Your task to perform on an android device: Find coffee shops on Maps Image 0: 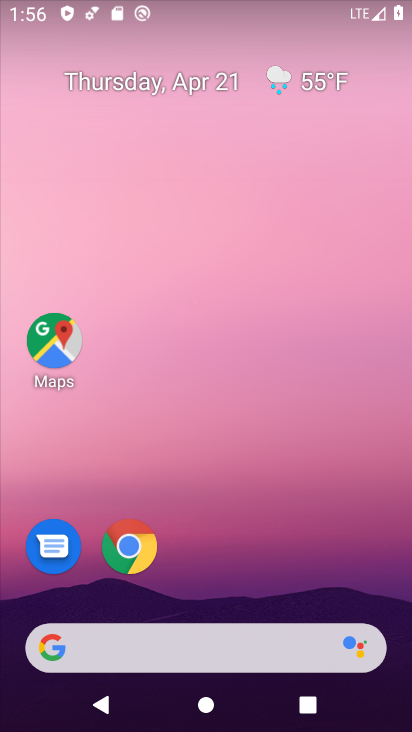
Step 0: click (59, 355)
Your task to perform on an android device: Find coffee shops on Maps Image 1: 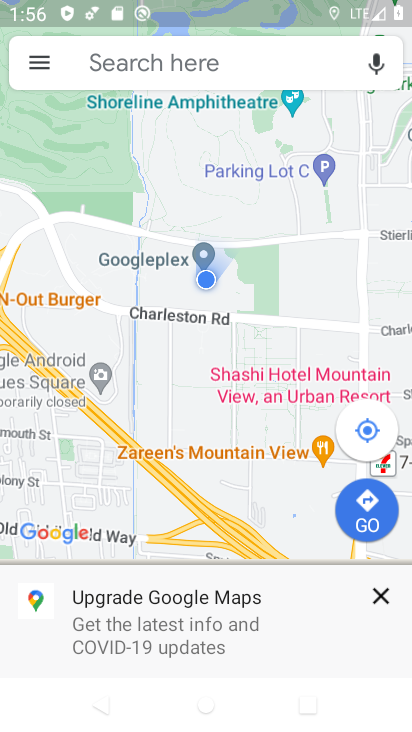
Step 1: click (208, 76)
Your task to perform on an android device: Find coffee shops on Maps Image 2: 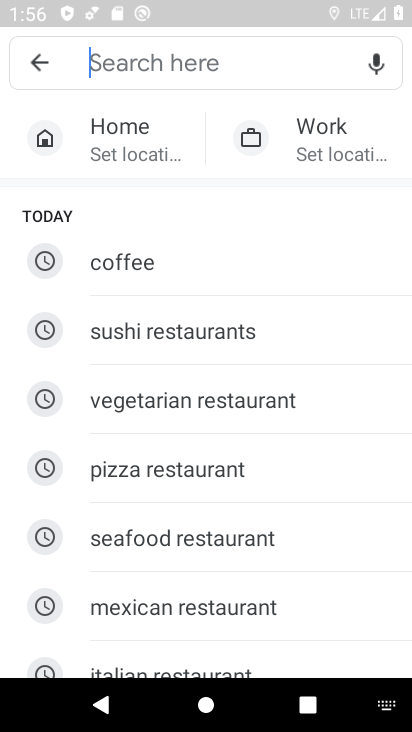
Step 2: click (154, 255)
Your task to perform on an android device: Find coffee shops on Maps Image 3: 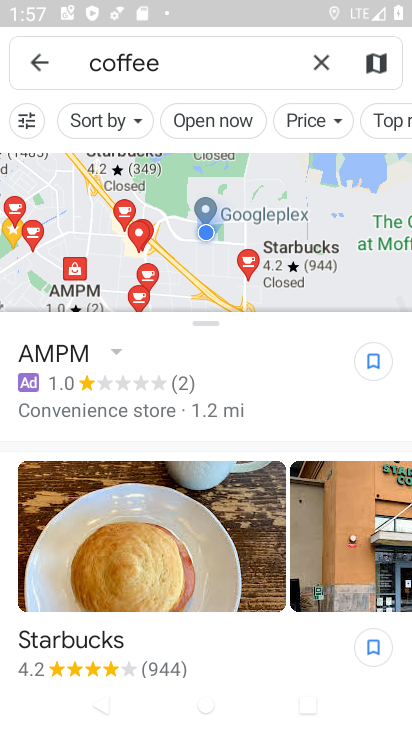
Step 3: task complete